Your task to perform on an android device: Open Reddit.com Image 0: 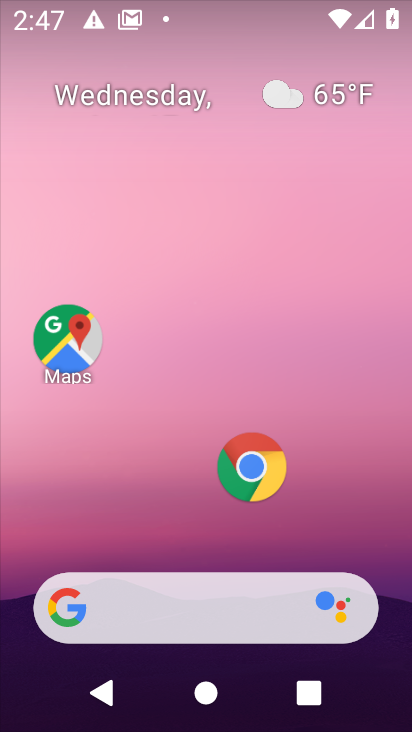
Step 0: click (259, 612)
Your task to perform on an android device: Open Reddit.com Image 1: 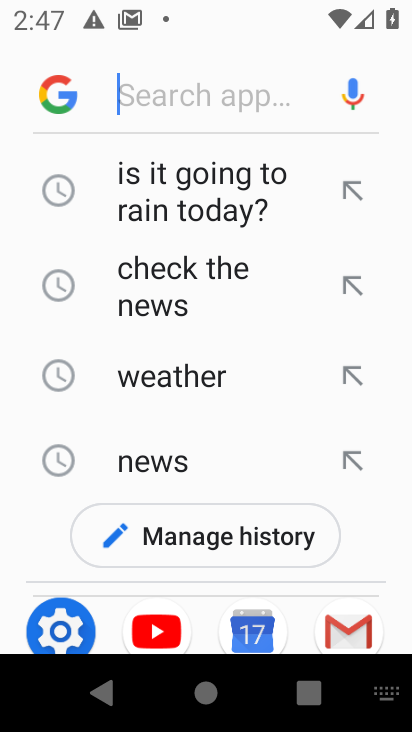
Step 1: type " Reddit.com"
Your task to perform on an android device: Open Reddit.com Image 2: 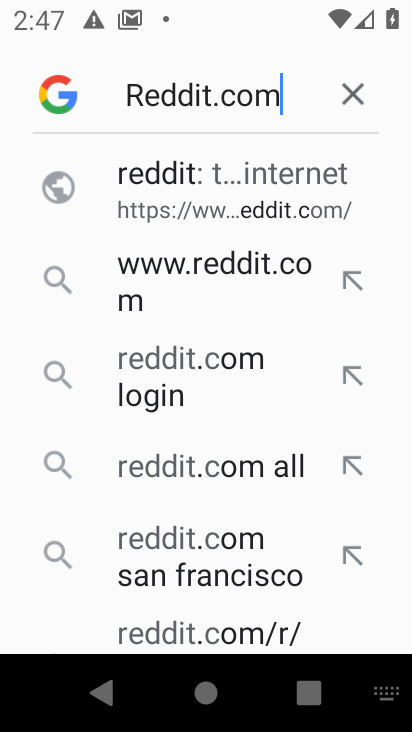
Step 2: type ""
Your task to perform on an android device: Open Reddit.com Image 3: 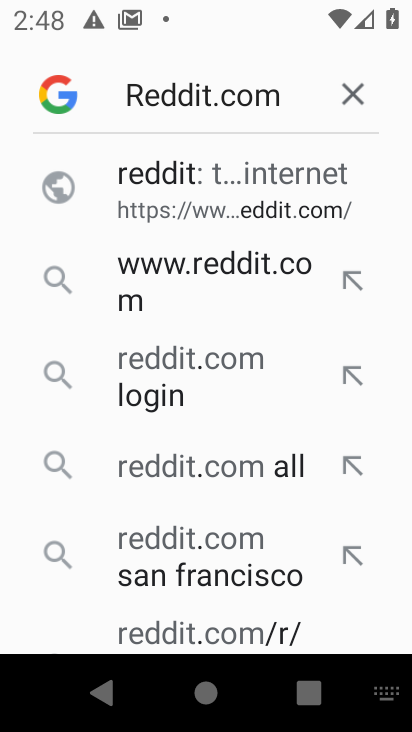
Step 3: press enter
Your task to perform on an android device: Open Reddit.com Image 4: 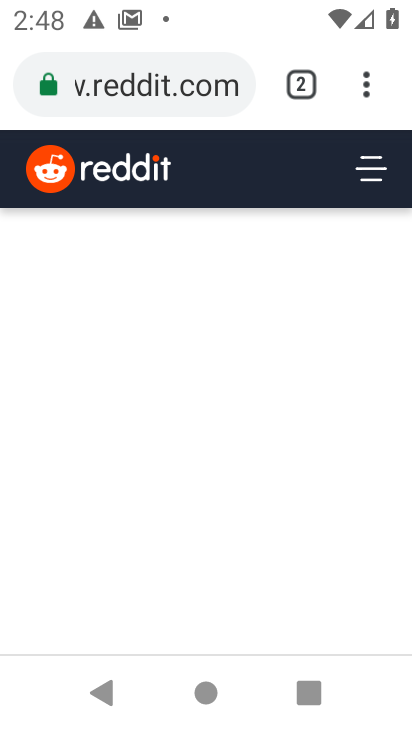
Step 4: task complete